Your task to perform on an android device: clear all cookies in the chrome app Image 0: 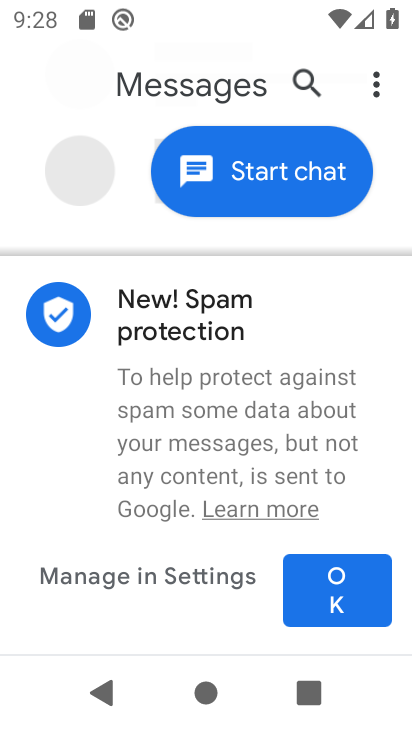
Step 0: press home button
Your task to perform on an android device: clear all cookies in the chrome app Image 1: 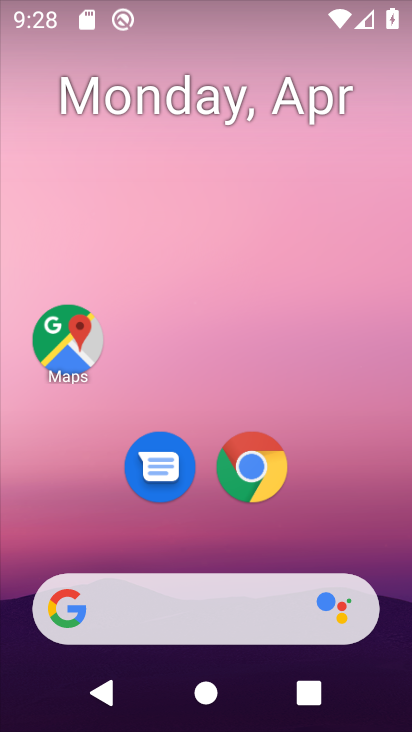
Step 1: drag from (184, 474) to (158, 82)
Your task to perform on an android device: clear all cookies in the chrome app Image 2: 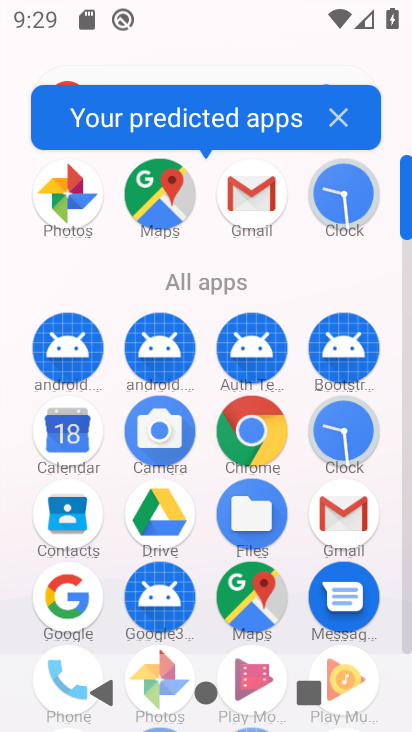
Step 2: click (260, 430)
Your task to perform on an android device: clear all cookies in the chrome app Image 3: 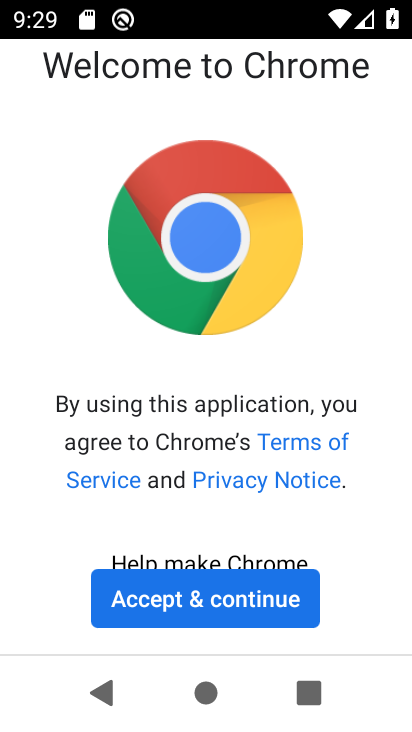
Step 3: click (206, 611)
Your task to perform on an android device: clear all cookies in the chrome app Image 4: 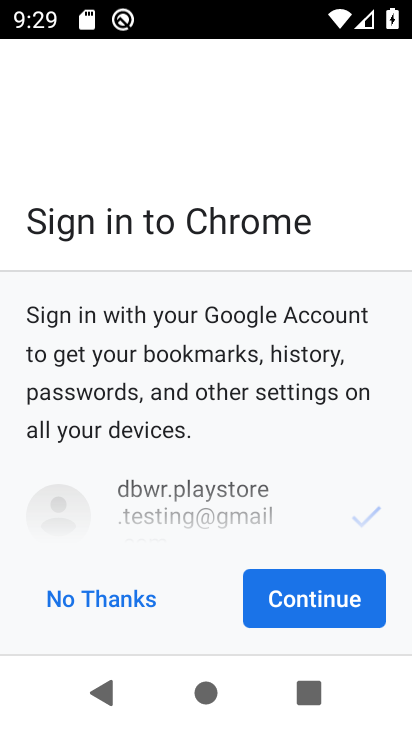
Step 4: click (320, 613)
Your task to perform on an android device: clear all cookies in the chrome app Image 5: 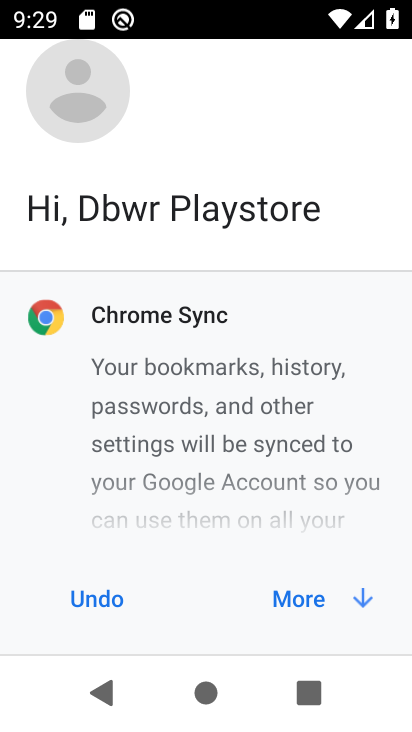
Step 5: click (387, 588)
Your task to perform on an android device: clear all cookies in the chrome app Image 6: 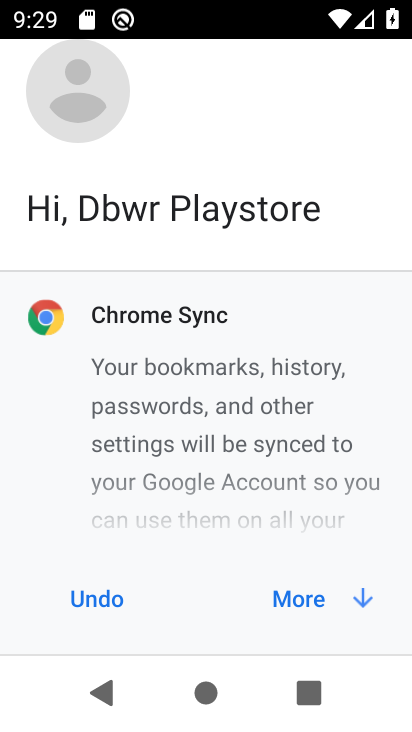
Step 6: click (318, 604)
Your task to perform on an android device: clear all cookies in the chrome app Image 7: 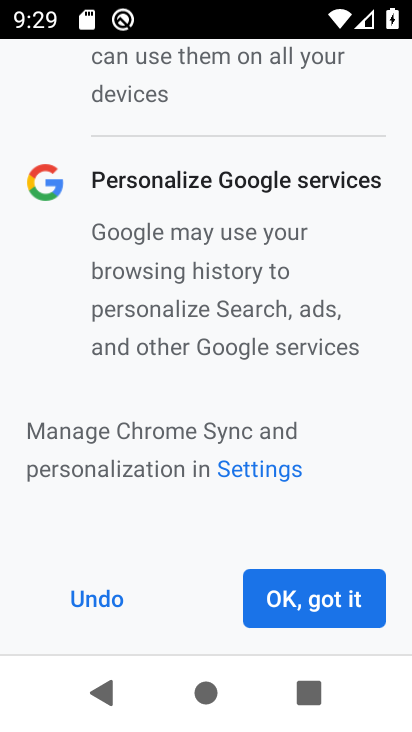
Step 7: click (318, 604)
Your task to perform on an android device: clear all cookies in the chrome app Image 8: 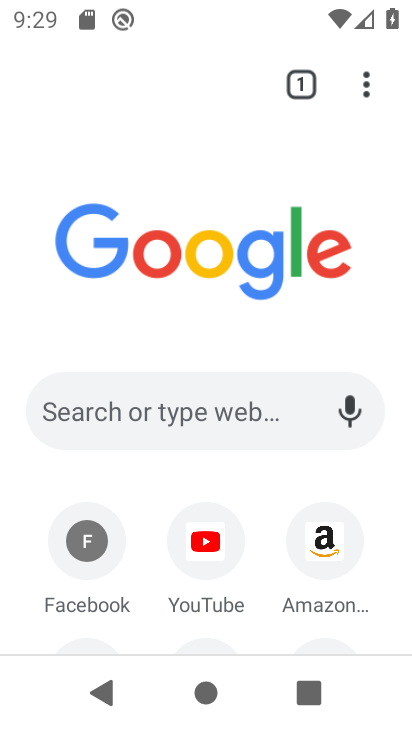
Step 8: click (369, 92)
Your task to perform on an android device: clear all cookies in the chrome app Image 9: 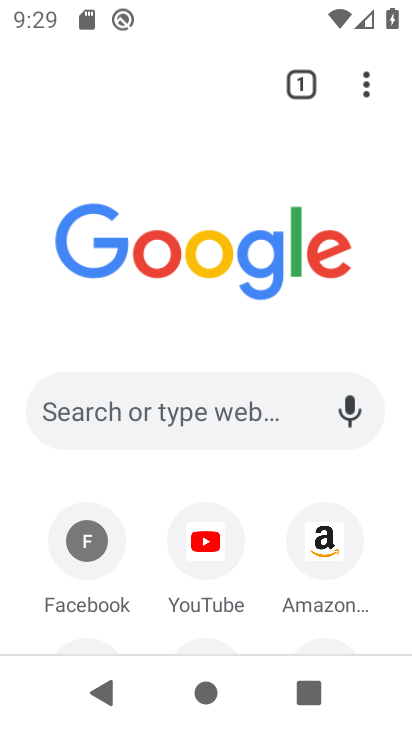
Step 9: task complete